Your task to perform on an android device: turn on the 12-hour format for clock Image 0: 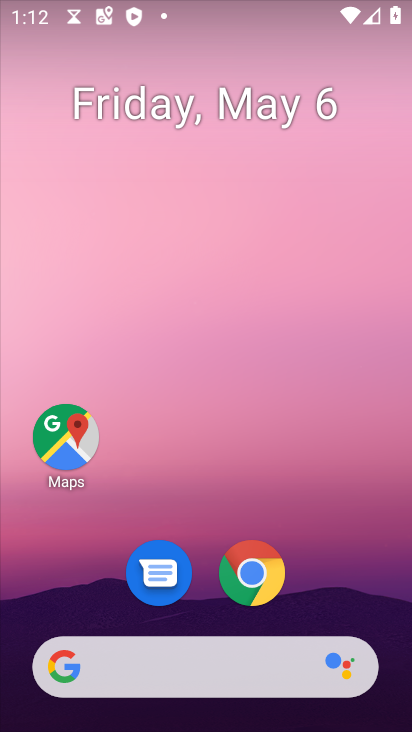
Step 0: drag from (363, 521) to (373, 318)
Your task to perform on an android device: turn on the 12-hour format for clock Image 1: 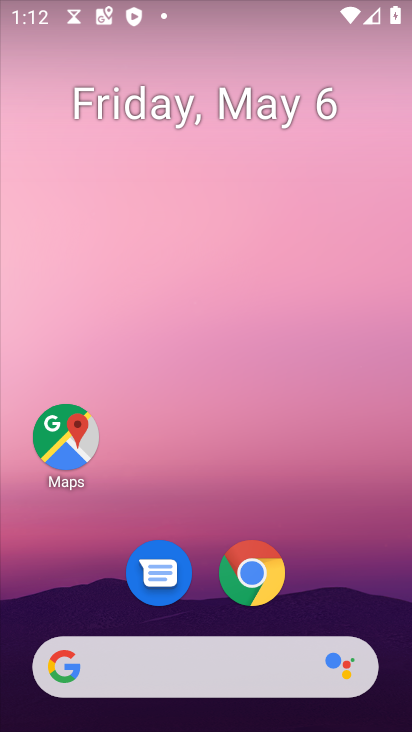
Step 1: drag from (356, 523) to (356, 245)
Your task to perform on an android device: turn on the 12-hour format for clock Image 2: 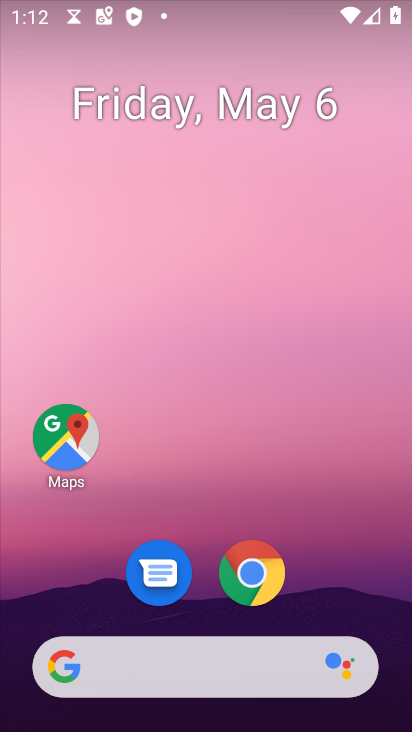
Step 2: drag from (321, 487) to (328, 209)
Your task to perform on an android device: turn on the 12-hour format for clock Image 3: 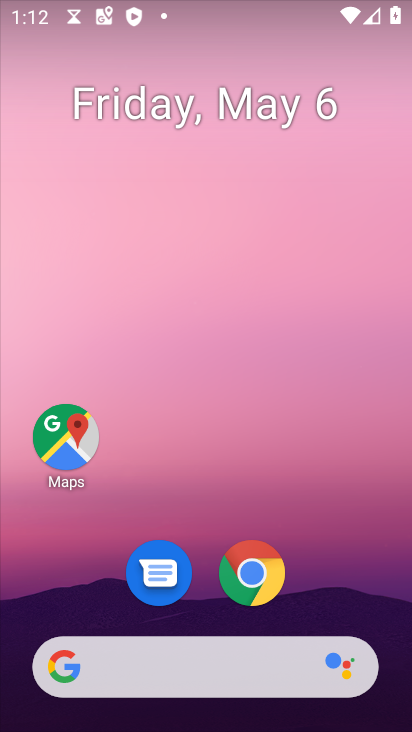
Step 3: drag from (298, 521) to (315, 33)
Your task to perform on an android device: turn on the 12-hour format for clock Image 4: 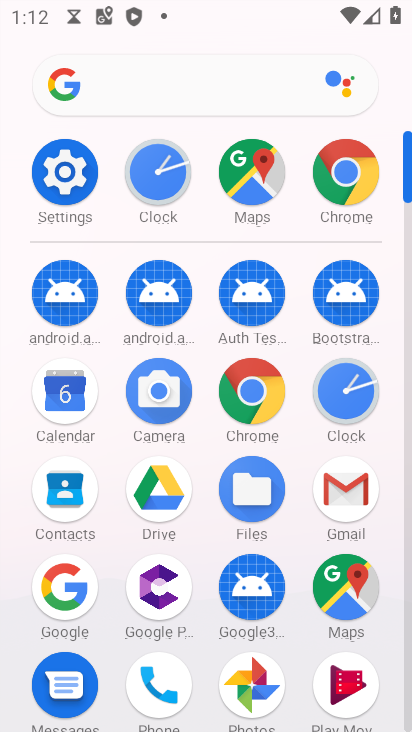
Step 4: click (335, 385)
Your task to perform on an android device: turn on the 12-hour format for clock Image 5: 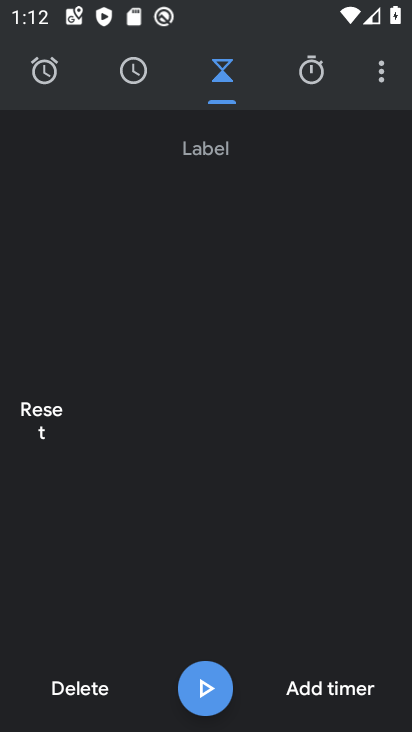
Step 5: click (384, 80)
Your task to perform on an android device: turn on the 12-hour format for clock Image 6: 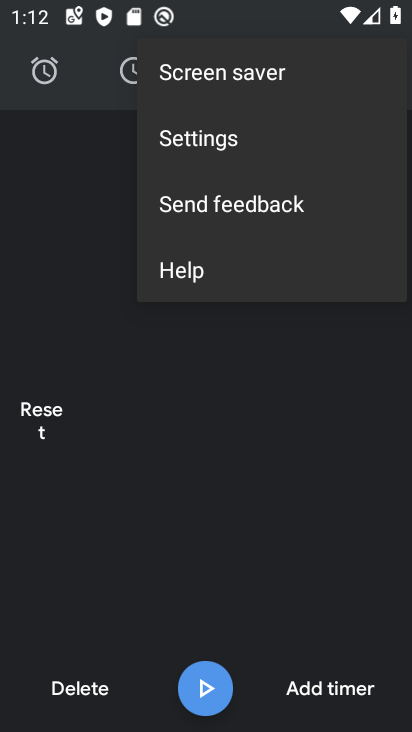
Step 6: click (212, 142)
Your task to perform on an android device: turn on the 12-hour format for clock Image 7: 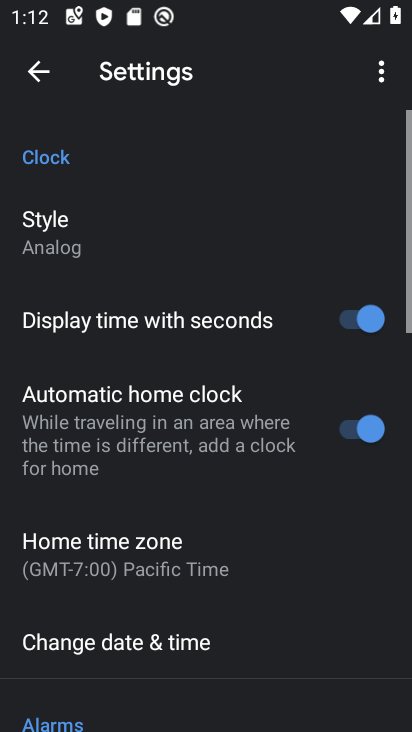
Step 7: drag from (179, 561) to (216, 328)
Your task to perform on an android device: turn on the 12-hour format for clock Image 8: 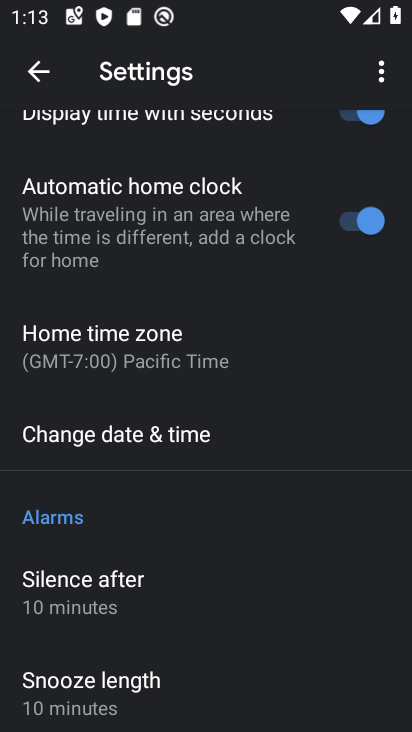
Step 8: click (143, 441)
Your task to perform on an android device: turn on the 12-hour format for clock Image 9: 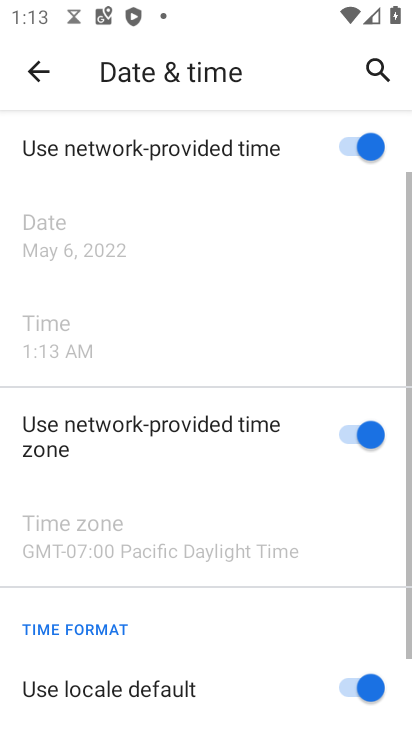
Step 9: drag from (215, 599) to (291, 247)
Your task to perform on an android device: turn on the 12-hour format for clock Image 10: 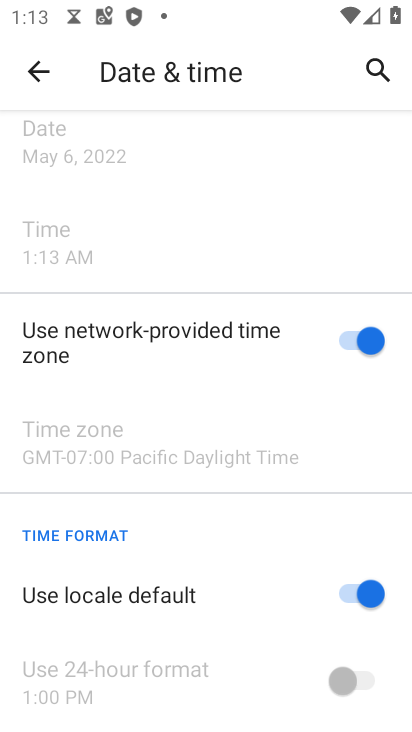
Step 10: click (365, 596)
Your task to perform on an android device: turn on the 12-hour format for clock Image 11: 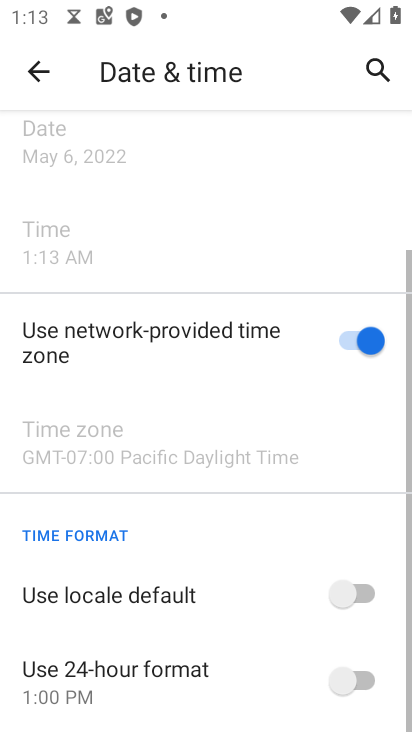
Step 11: click (339, 676)
Your task to perform on an android device: turn on the 12-hour format for clock Image 12: 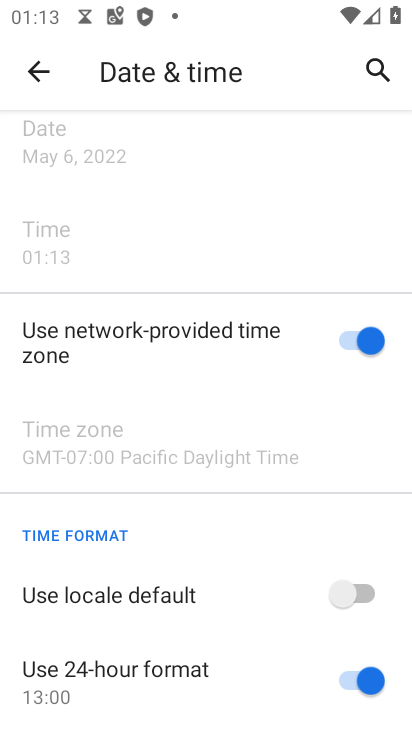
Step 12: task complete